Your task to perform on an android device: What are the new products by Samsung? Image 0: 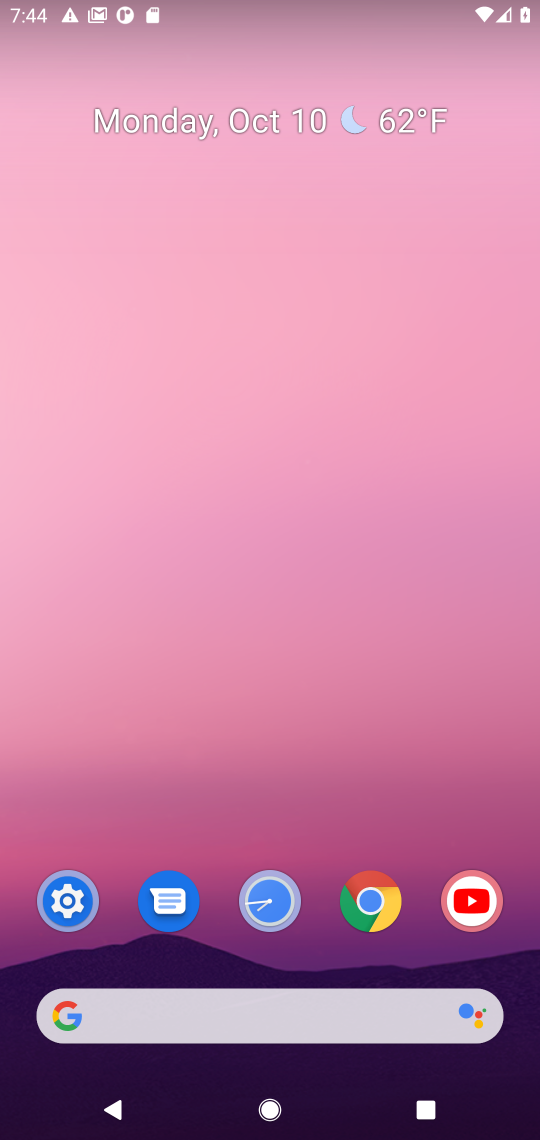
Step 0: drag from (384, 613) to (458, 433)
Your task to perform on an android device: What are the new products by Samsung? Image 1: 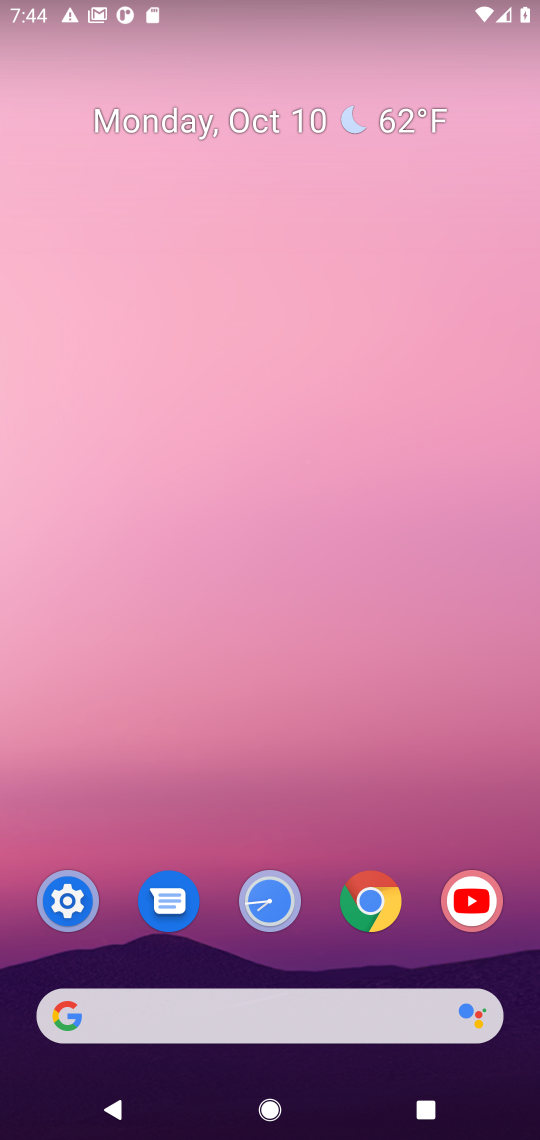
Step 1: drag from (328, 992) to (328, 411)
Your task to perform on an android device: What are the new products by Samsung? Image 2: 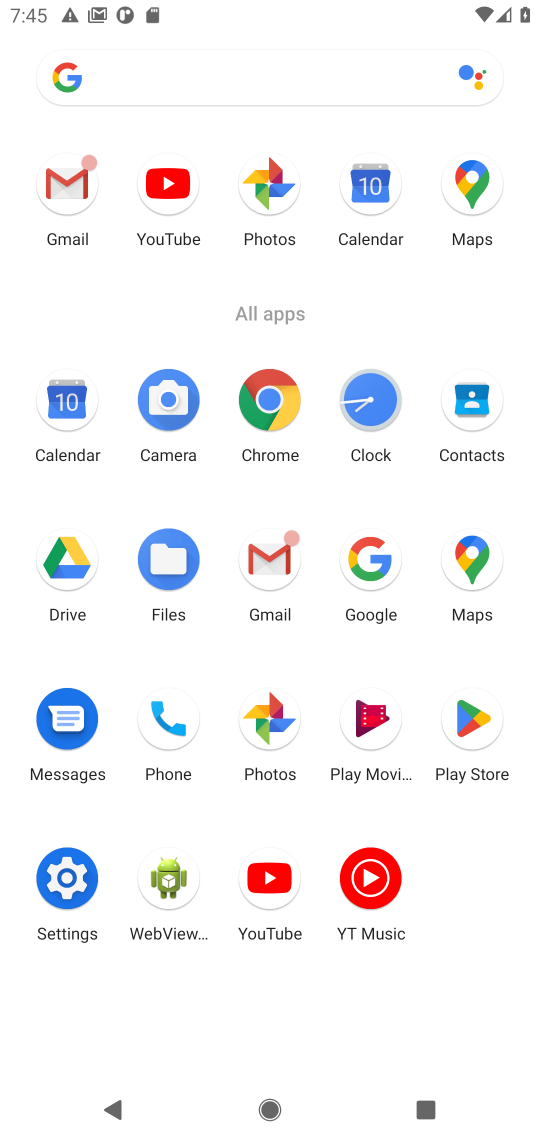
Step 2: click (367, 559)
Your task to perform on an android device: What are the new products by Samsung? Image 3: 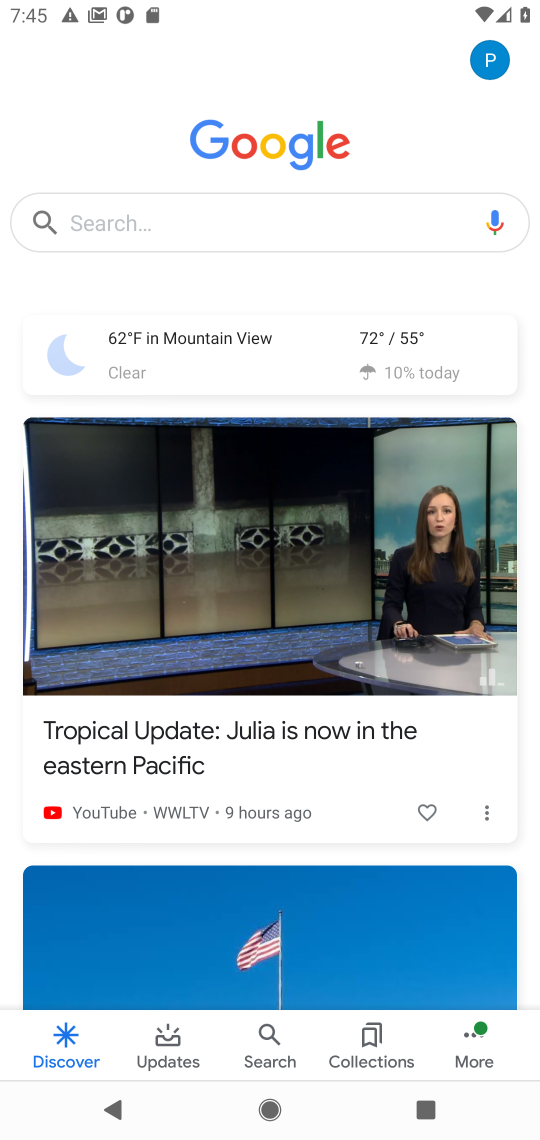
Step 3: click (306, 218)
Your task to perform on an android device: What are the new products by Samsung? Image 4: 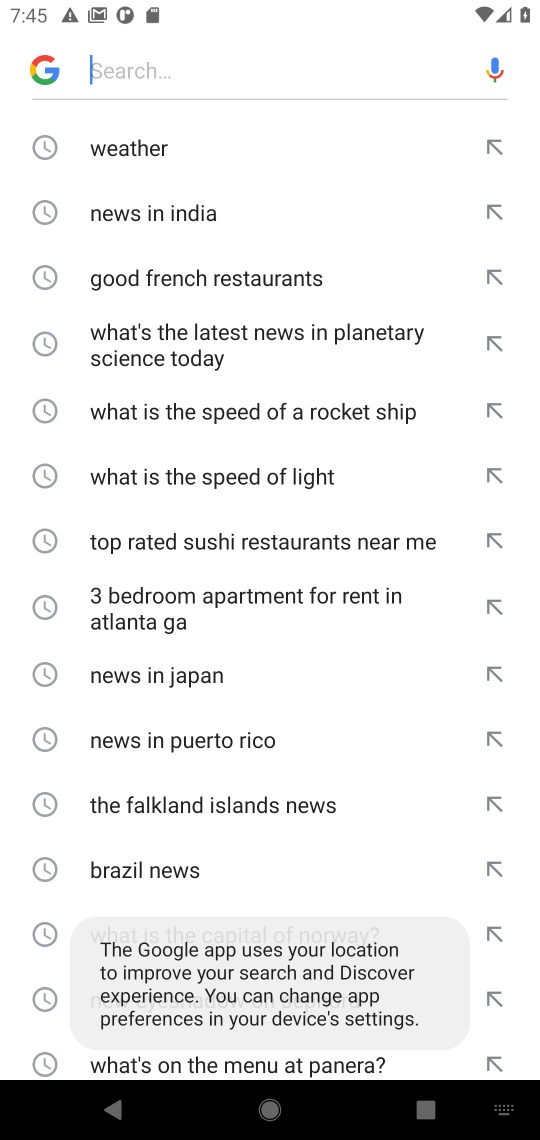
Step 4: type "What are the new products by Samsung?"
Your task to perform on an android device: What are the new products by Samsung? Image 5: 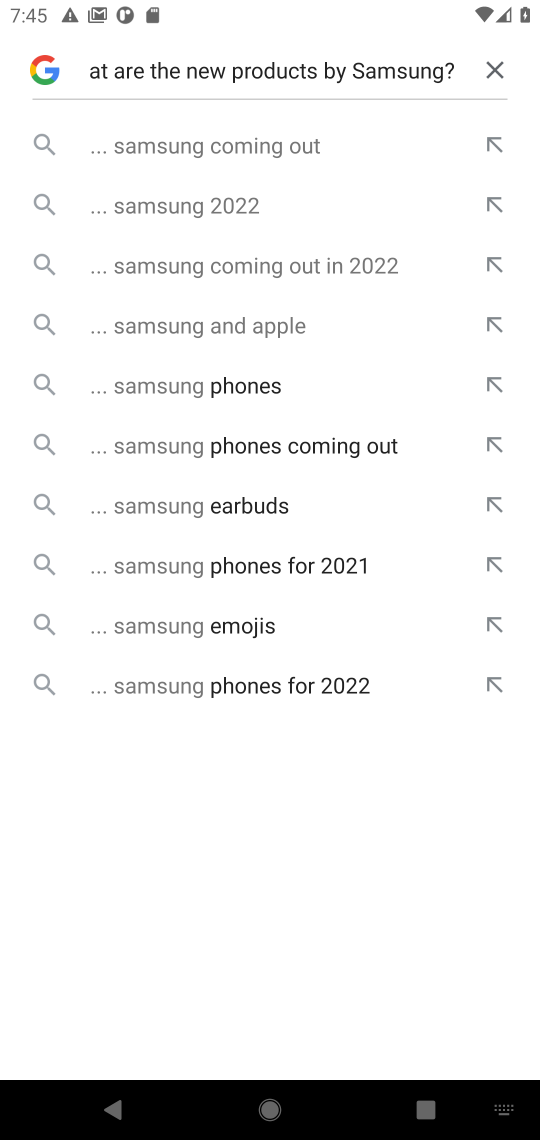
Step 5: click (283, 217)
Your task to perform on an android device: What are the new products by Samsung? Image 6: 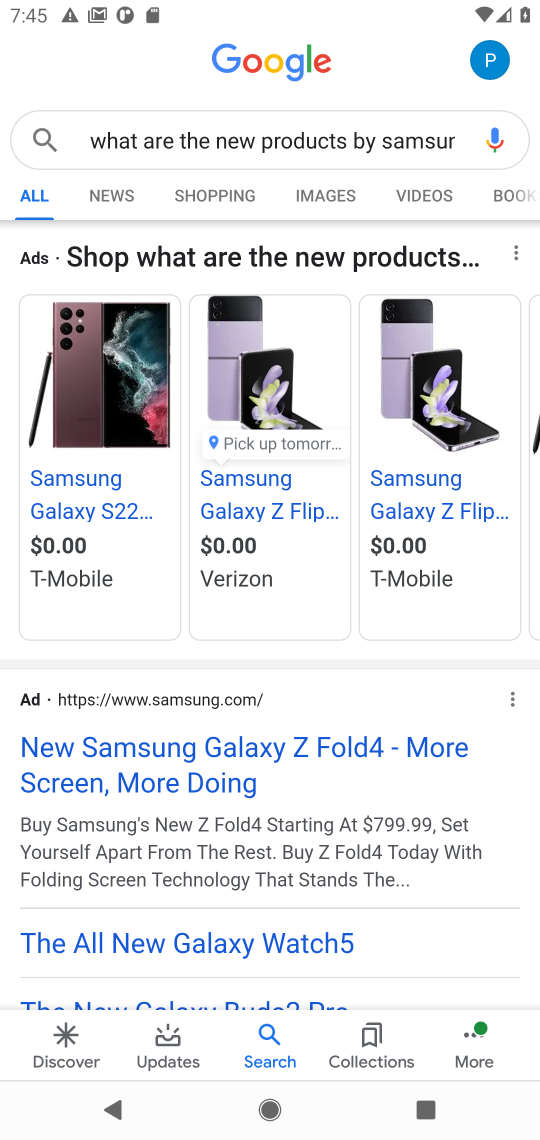
Step 6: task complete